Your task to perform on an android device: check storage Image 0: 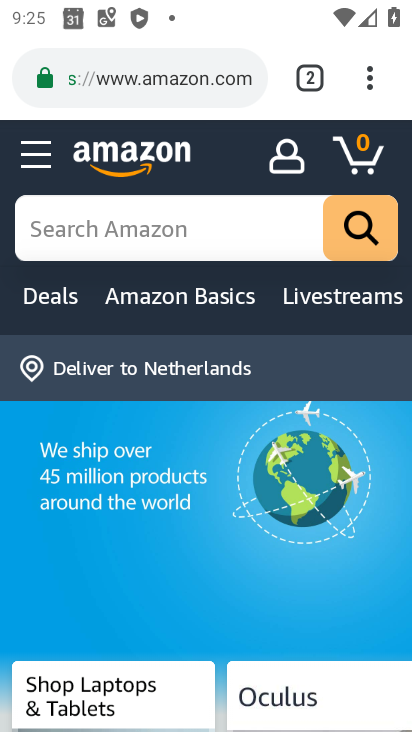
Step 0: press home button
Your task to perform on an android device: check storage Image 1: 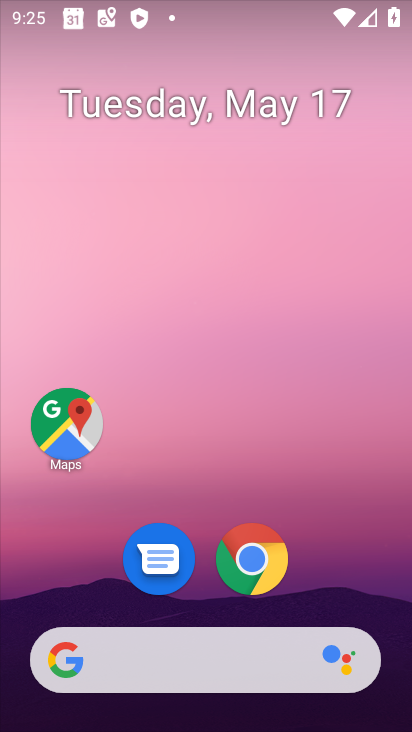
Step 1: drag from (295, 700) to (346, 68)
Your task to perform on an android device: check storage Image 2: 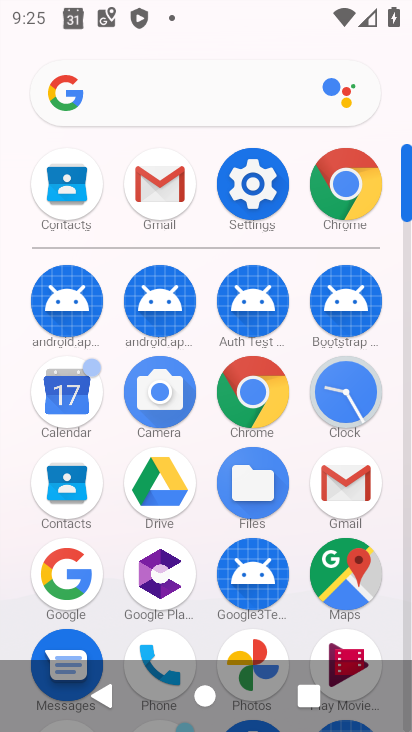
Step 2: click (243, 201)
Your task to perform on an android device: check storage Image 3: 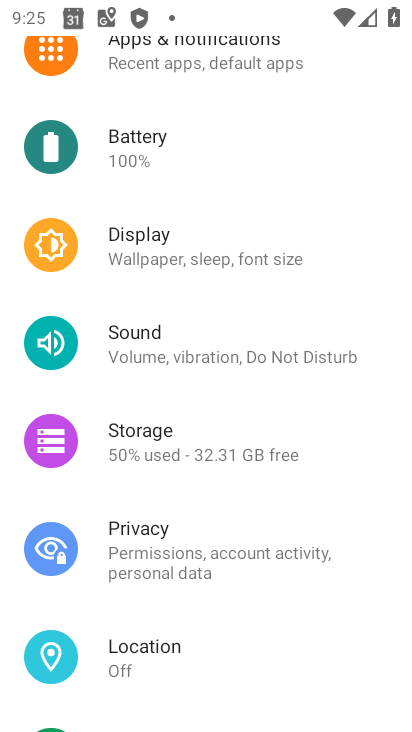
Step 3: click (191, 450)
Your task to perform on an android device: check storage Image 4: 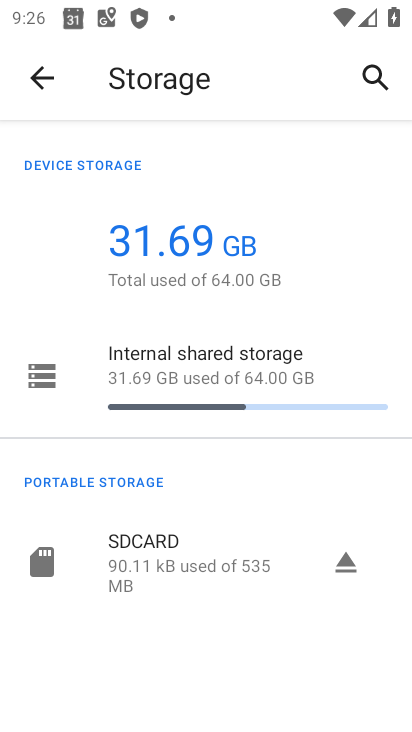
Step 4: task complete